Your task to perform on an android device: check the backup settings in the google photos Image 0: 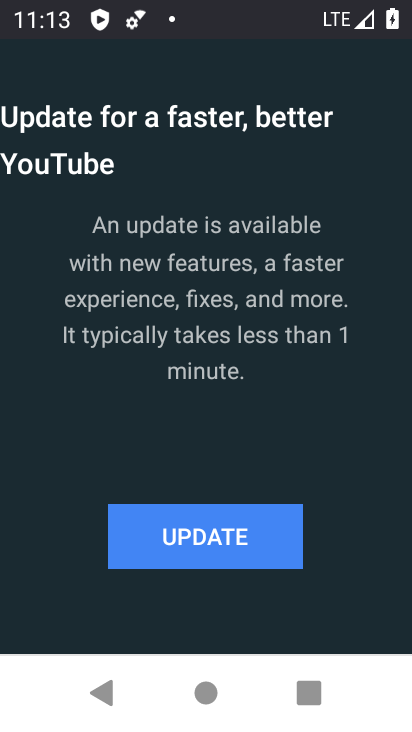
Step 0: press back button
Your task to perform on an android device: check the backup settings in the google photos Image 1: 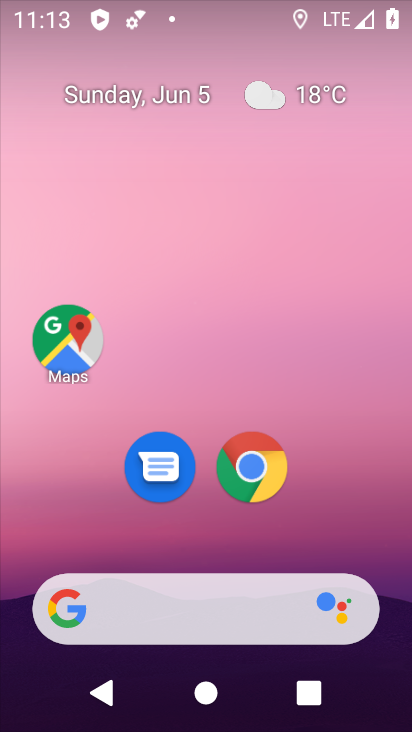
Step 1: drag from (211, 7) to (180, 56)
Your task to perform on an android device: check the backup settings in the google photos Image 2: 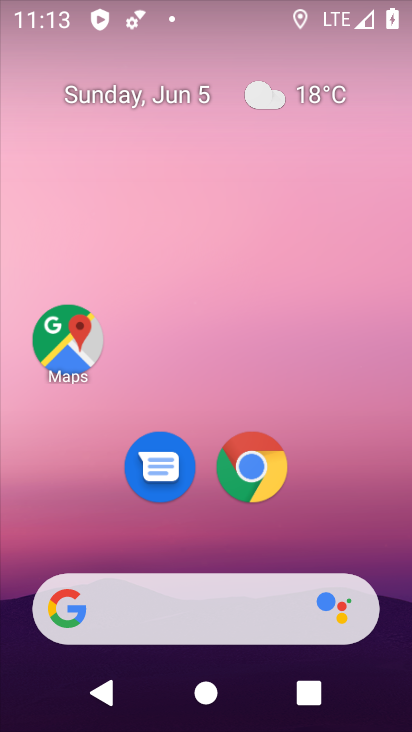
Step 2: drag from (220, 551) to (202, 3)
Your task to perform on an android device: check the backup settings in the google photos Image 3: 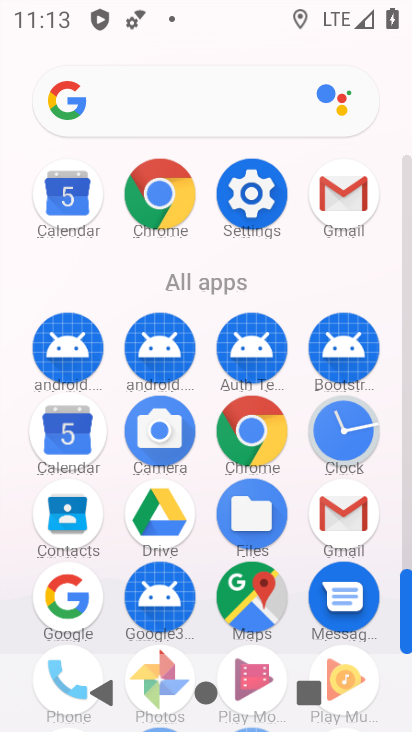
Step 3: click (164, 646)
Your task to perform on an android device: check the backup settings in the google photos Image 4: 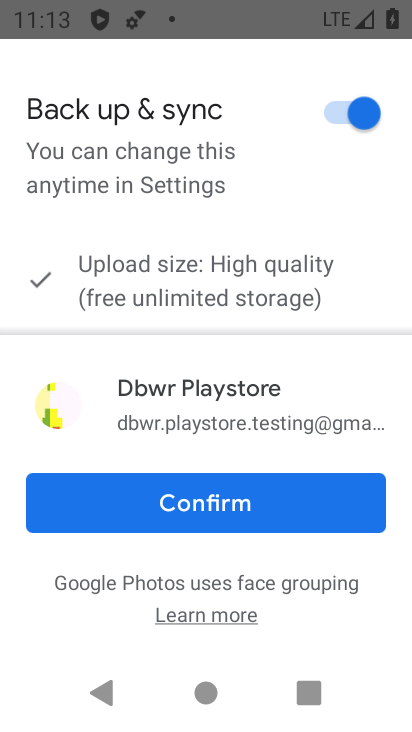
Step 4: click (95, 463)
Your task to perform on an android device: check the backup settings in the google photos Image 5: 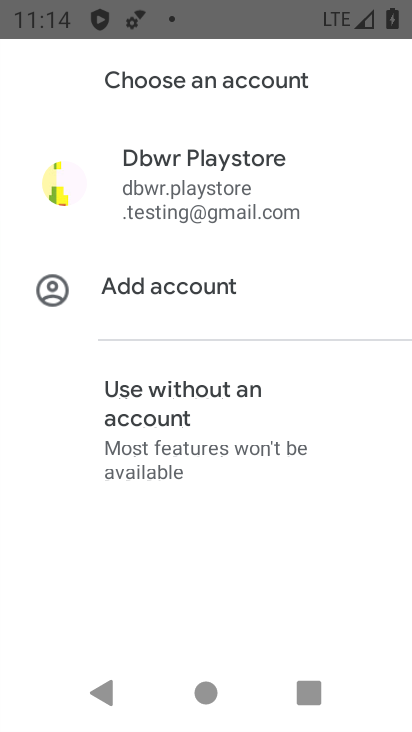
Step 5: click (156, 198)
Your task to perform on an android device: check the backup settings in the google photos Image 6: 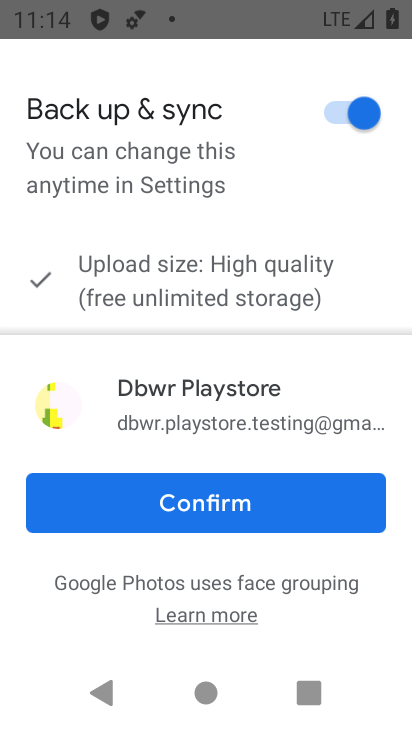
Step 6: click (261, 518)
Your task to perform on an android device: check the backup settings in the google photos Image 7: 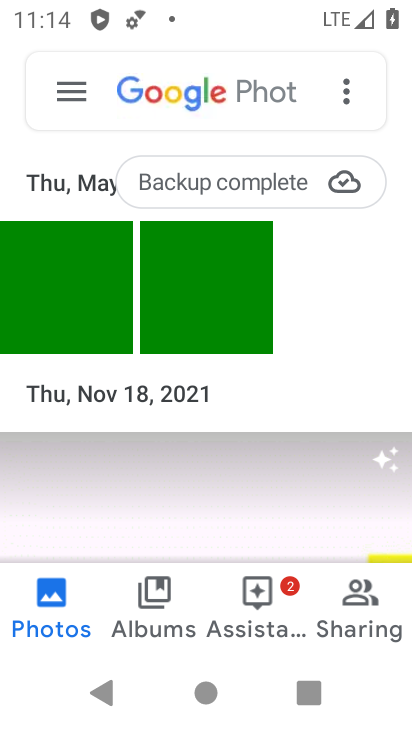
Step 7: click (68, 85)
Your task to perform on an android device: check the backup settings in the google photos Image 8: 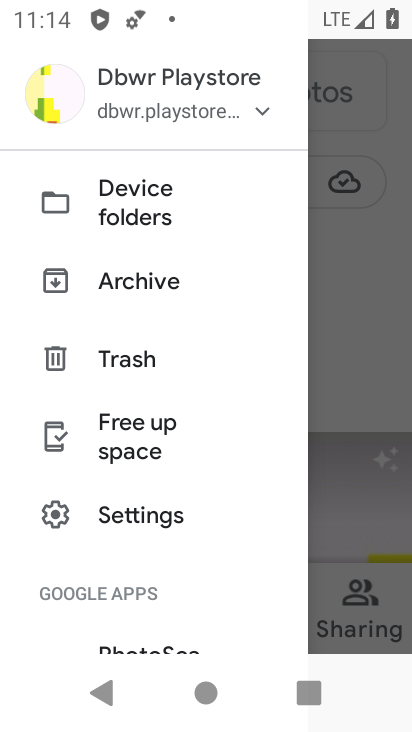
Step 8: click (133, 501)
Your task to perform on an android device: check the backup settings in the google photos Image 9: 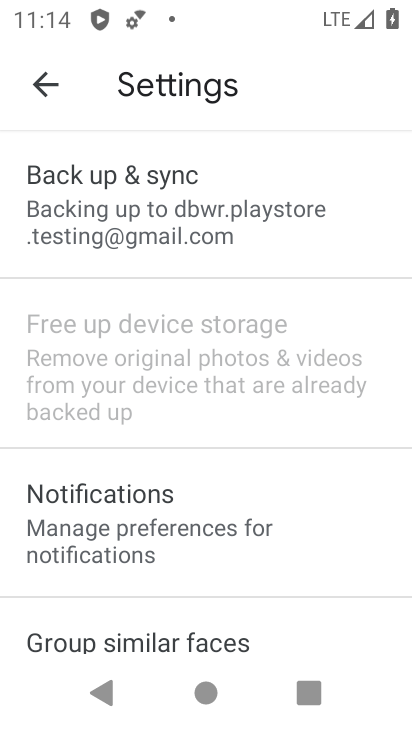
Step 9: click (159, 199)
Your task to perform on an android device: check the backup settings in the google photos Image 10: 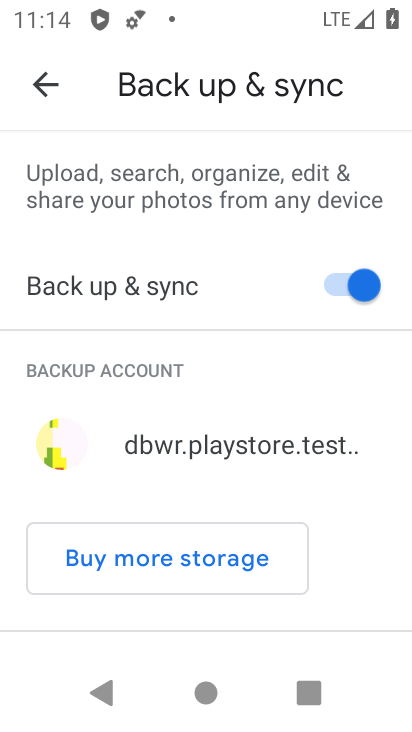
Step 10: task complete